Your task to perform on an android device: Open CNN.com Image 0: 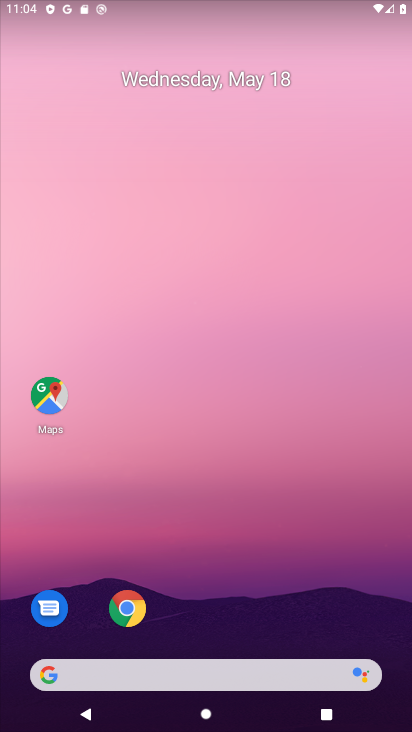
Step 0: click (136, 612)
Your task to perform on an android device: Open CNN.com Image 1: 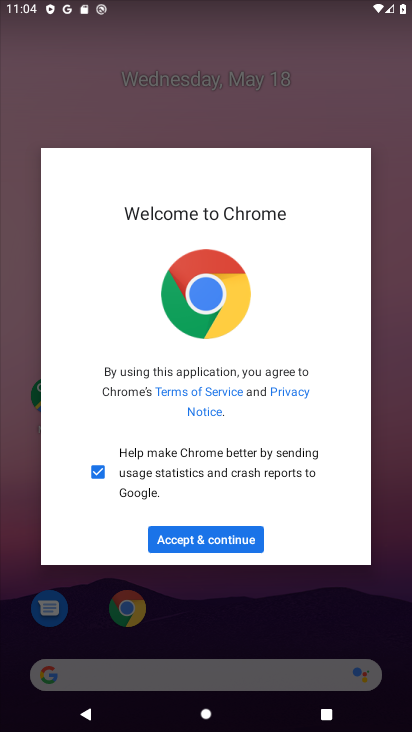
Step 1: click (202, 552)
Your task to perform on an android device: Open CNN.com Image 2: 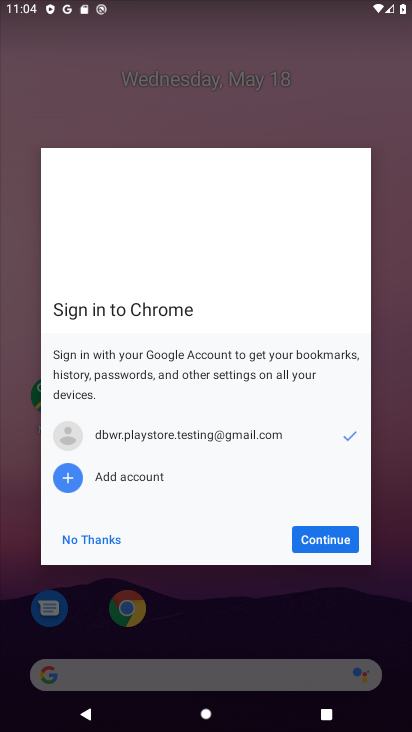
Step 2: click (347, 543)
Your task to perform on an android device: Open CNN.com Image 3: 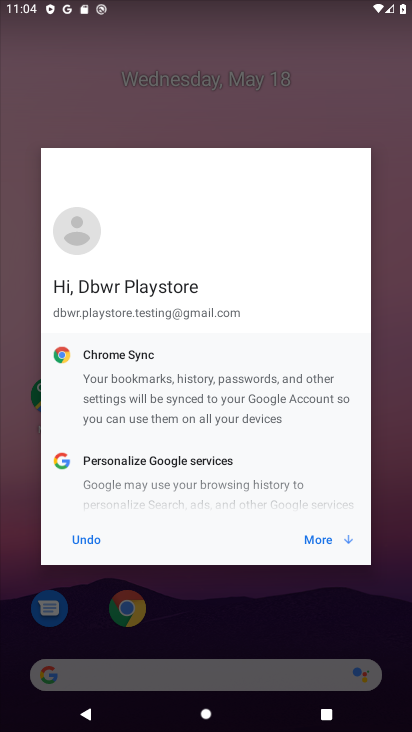
Step 3: click (320, 539)
Your task to perform on an android device: Open CNN.com Image 4: 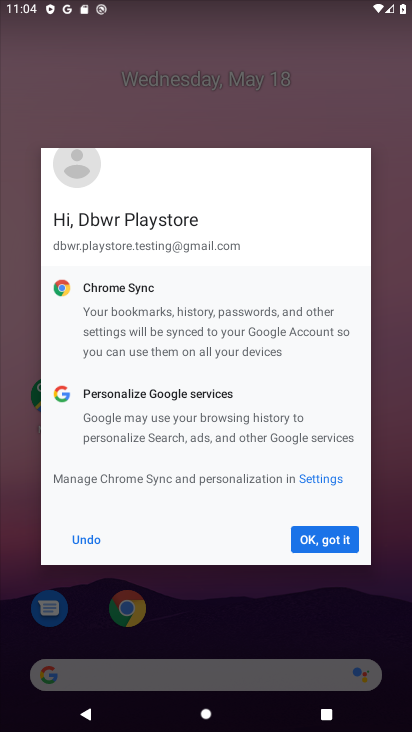
Step 4: click (316, 533)
Your task to perform on an android device: Open CNN.com Image 5: 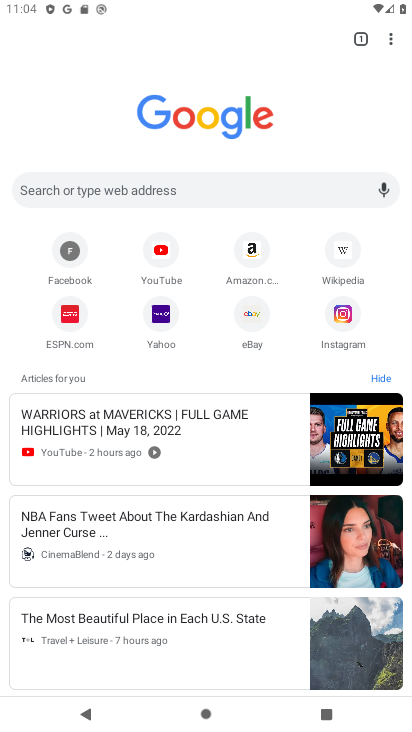
Step 5: click (168, 187)
Your task to perform on an android device: Open CNN.com Image 6: 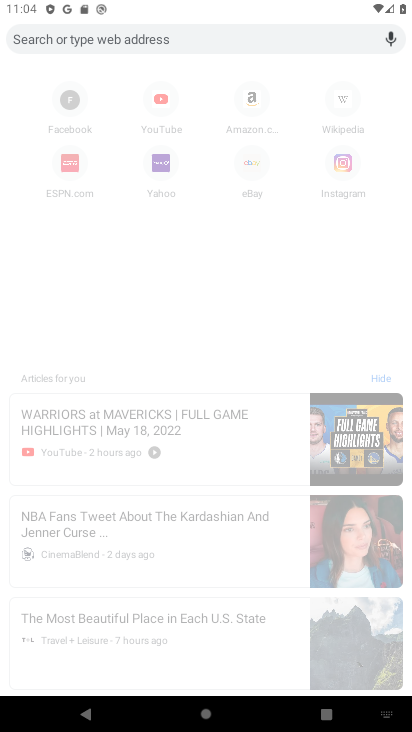
Step 6: type "cnn.com"
Your task to perform on an android device: Open CNN.com Image 7: 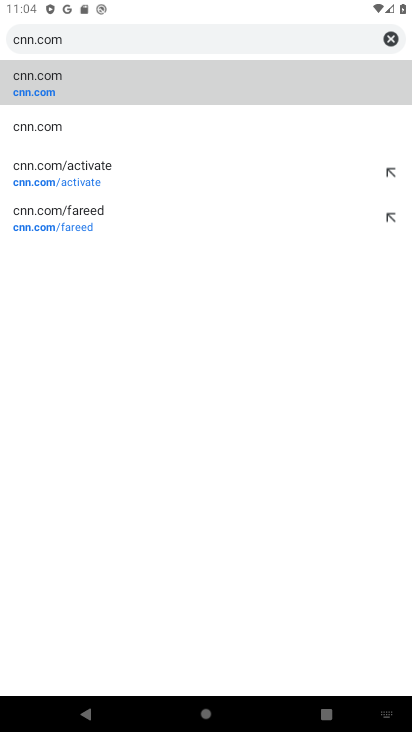
Step 7: click (28, 72)
Your task to perform on an android device: Open CNN.com Image 8: 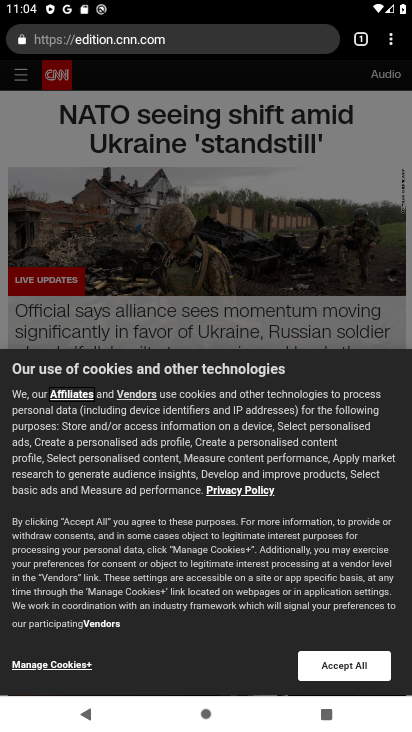
Step 8: task complete